Your task to perform on an android device: Open the Play Movies app and select the watchlist tab. Image 0: 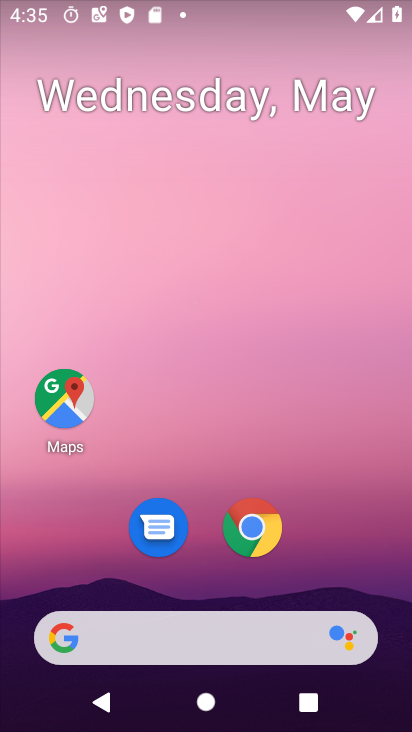
Step 0: drag from (305, 581) to (346, 124)
Your task to perform on an android device: Open the Play Movies app and select the watchlist tab. Image 1: 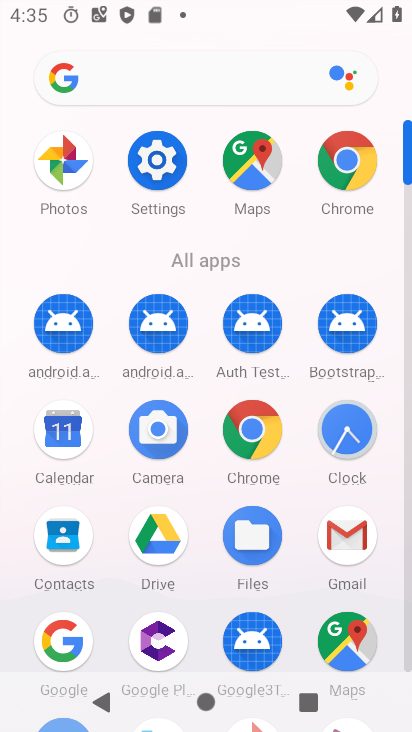
Step 1: drag from (309, 274) to (324, 44)
Your task to perform on an android device: Open the Play Movies app and select the watchlist tab. Image 2: 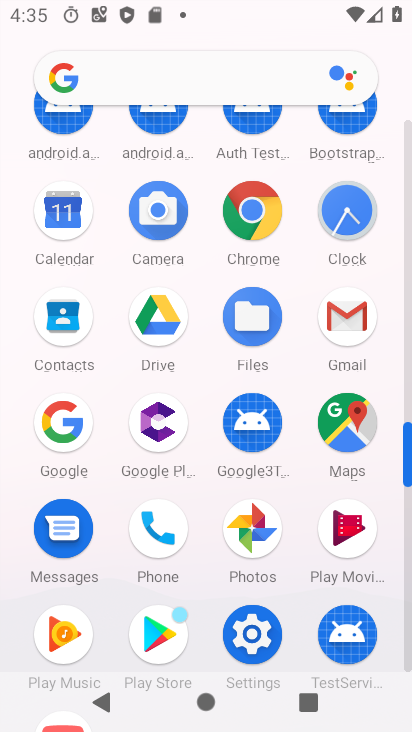
Step 2: click (349, 519)
Your task to perform on an android device: Open the Play Movies app and select the watchlist tab. Image 3: 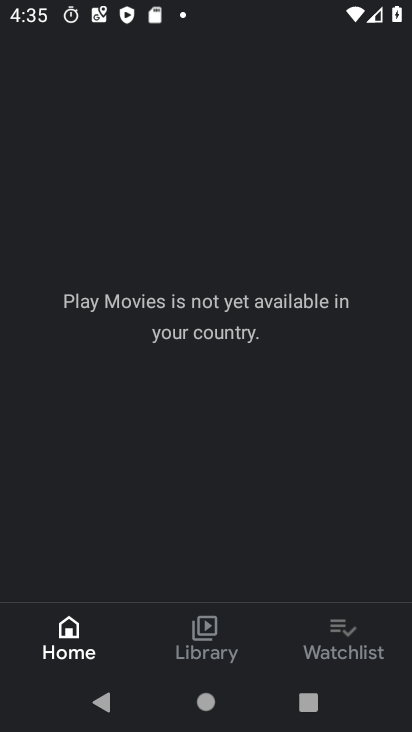
Step 3: click (319, 650)
Your task to perform on an android device: Open the Play Movies app and select the watchlist tab. Image 4: 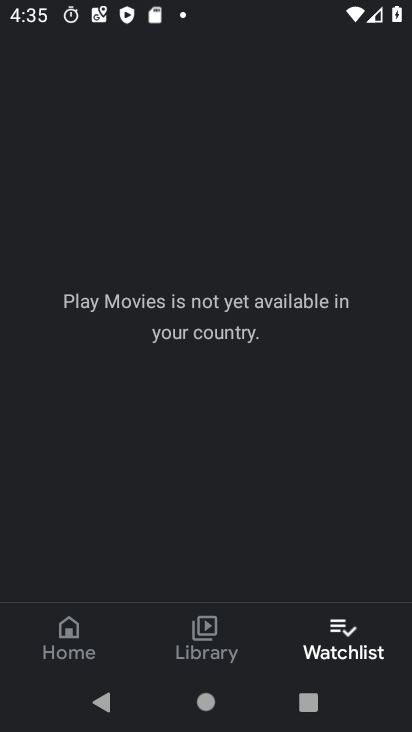
Step 4: task complete